Your task to perform on an android device: Open my contact list Image 0: 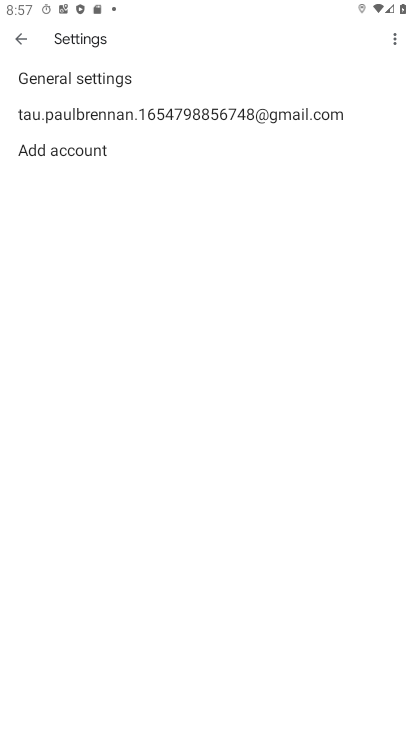
Step 0: drag from (235, 608) to (192, 240)
Your task to perform on an android device: Open my contact list Image 1: 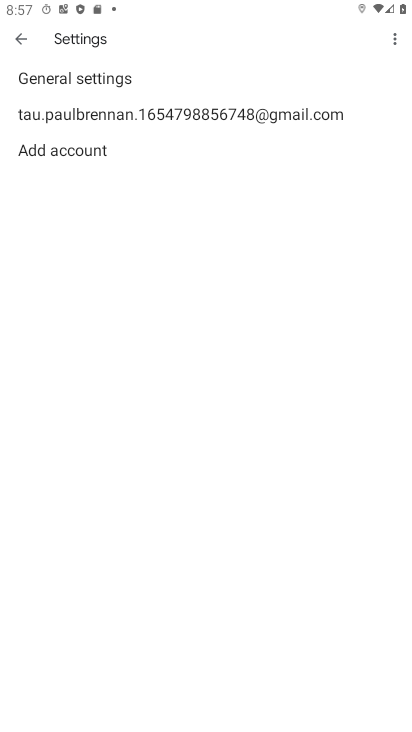
Step 1: click (27, 39)
Your task to perform on an android device: Open my contact list Image 2: 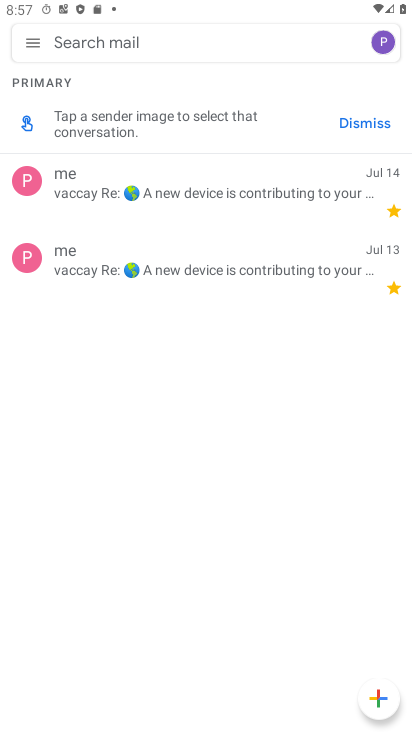
Step 2: press back button
Your task to perform on an android device: Open my contact list Image 3: 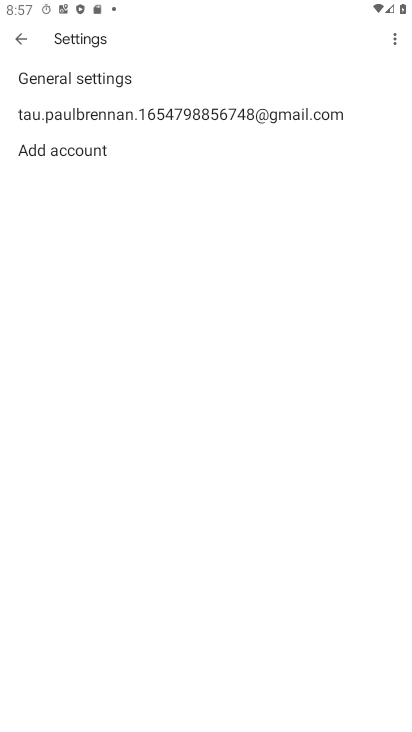
Step 3: press back button
Your task to perform on an android device: Open my contact list Image 4: 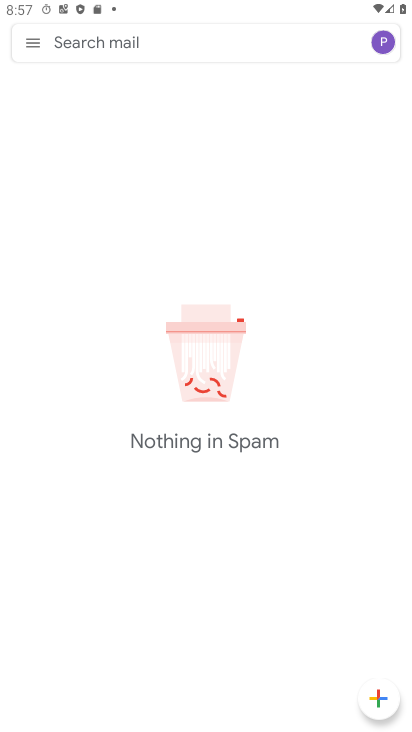
Step 4: press home button
Your task to perform on an android device: Open my contact list Image 5: 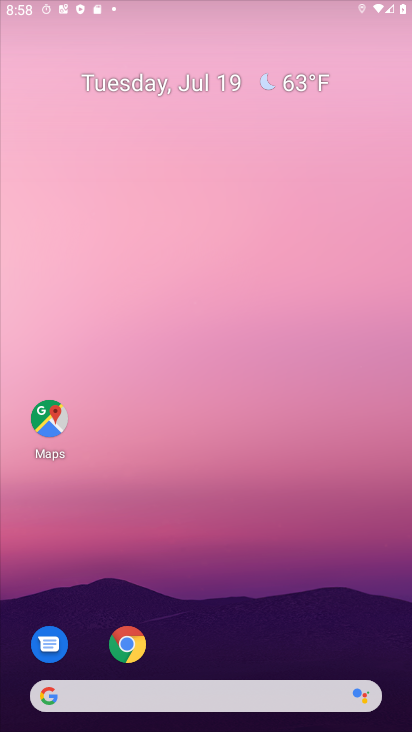
Step 5: drag from (203, 402) to (189, 46)
Your task to perform on an android device: Open my contact list Image 6: 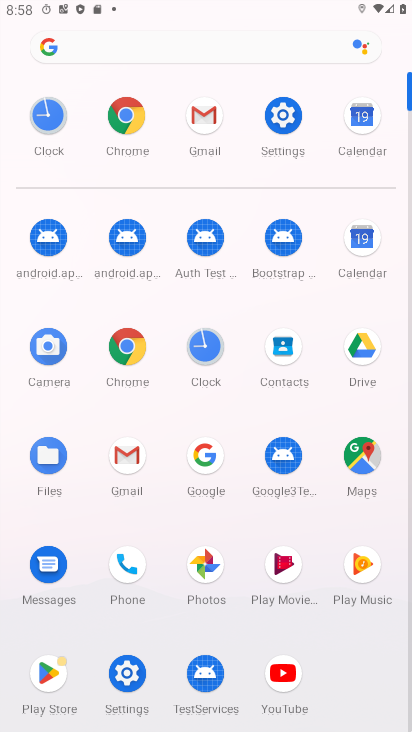
Step 6: click (279, 350)
Your task to perform on an android device: Open my contact list Image 7: 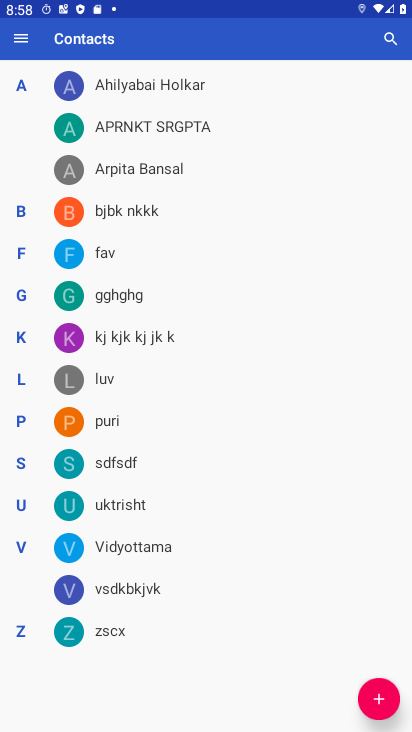
Step 7: task complete